Your task to perform on an android device: When is my next appointment? Image 0: 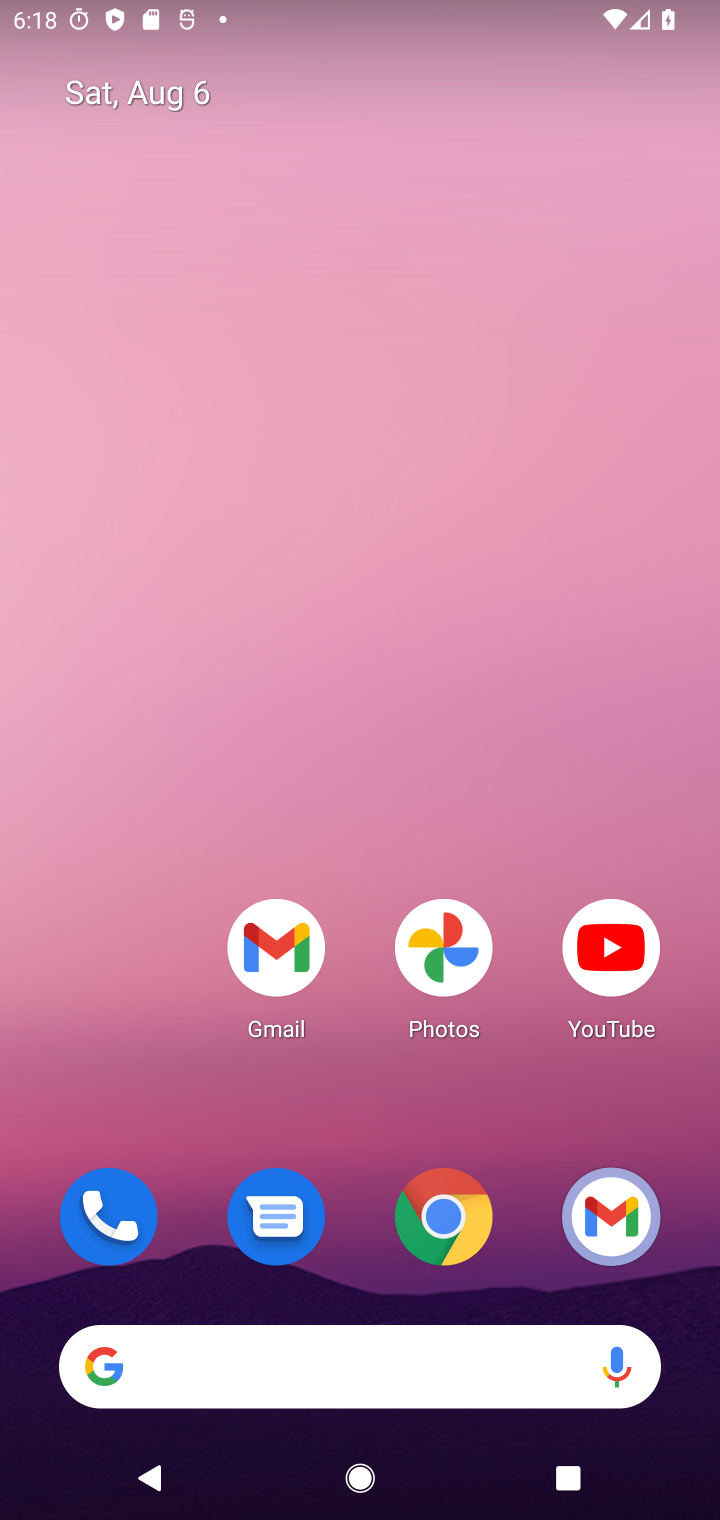
Step 0: drag from (527, 1172) to (615, 318)
Your task to perform on an android device: When is my next appointment? Image 1: 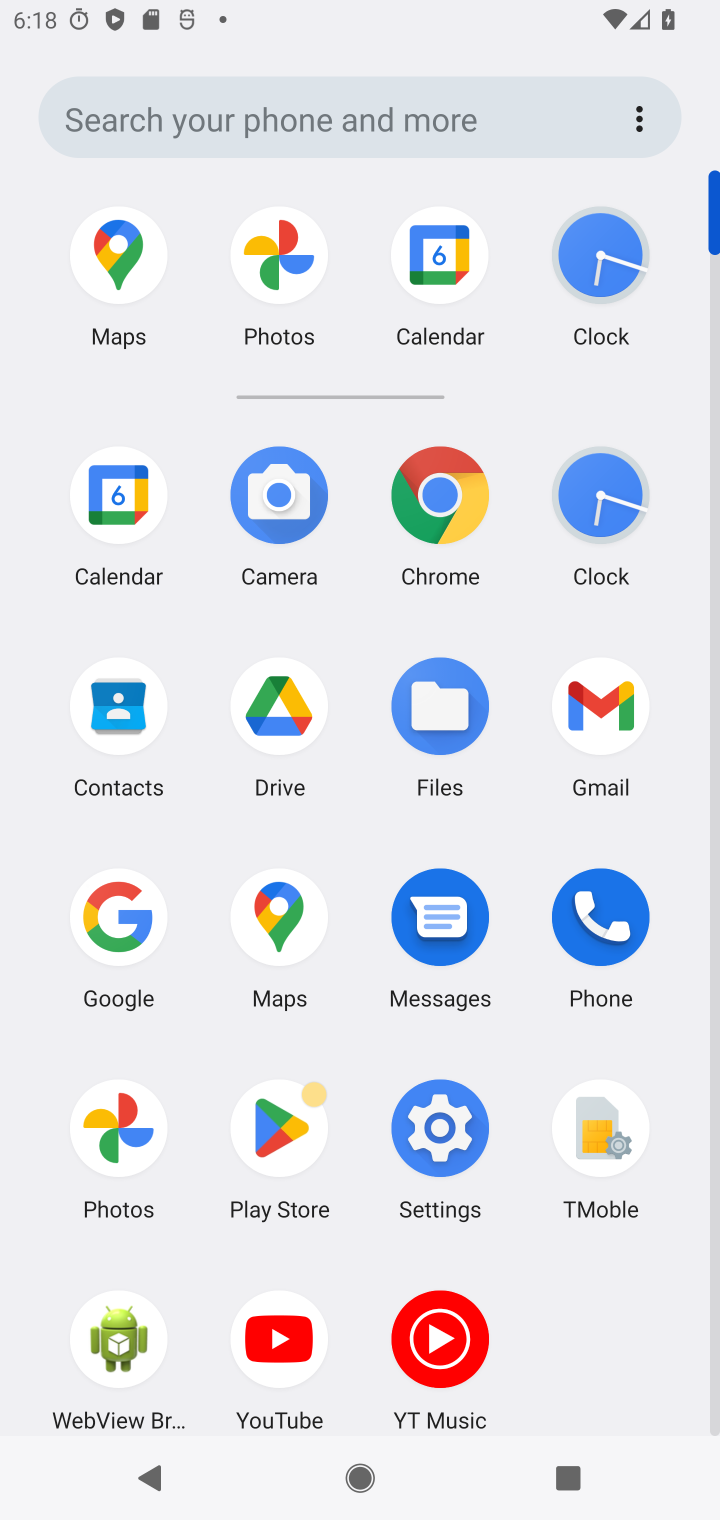
Step 1: click (118, 492)
Your task to perform on an android device: When is my next appointment? Image 2: 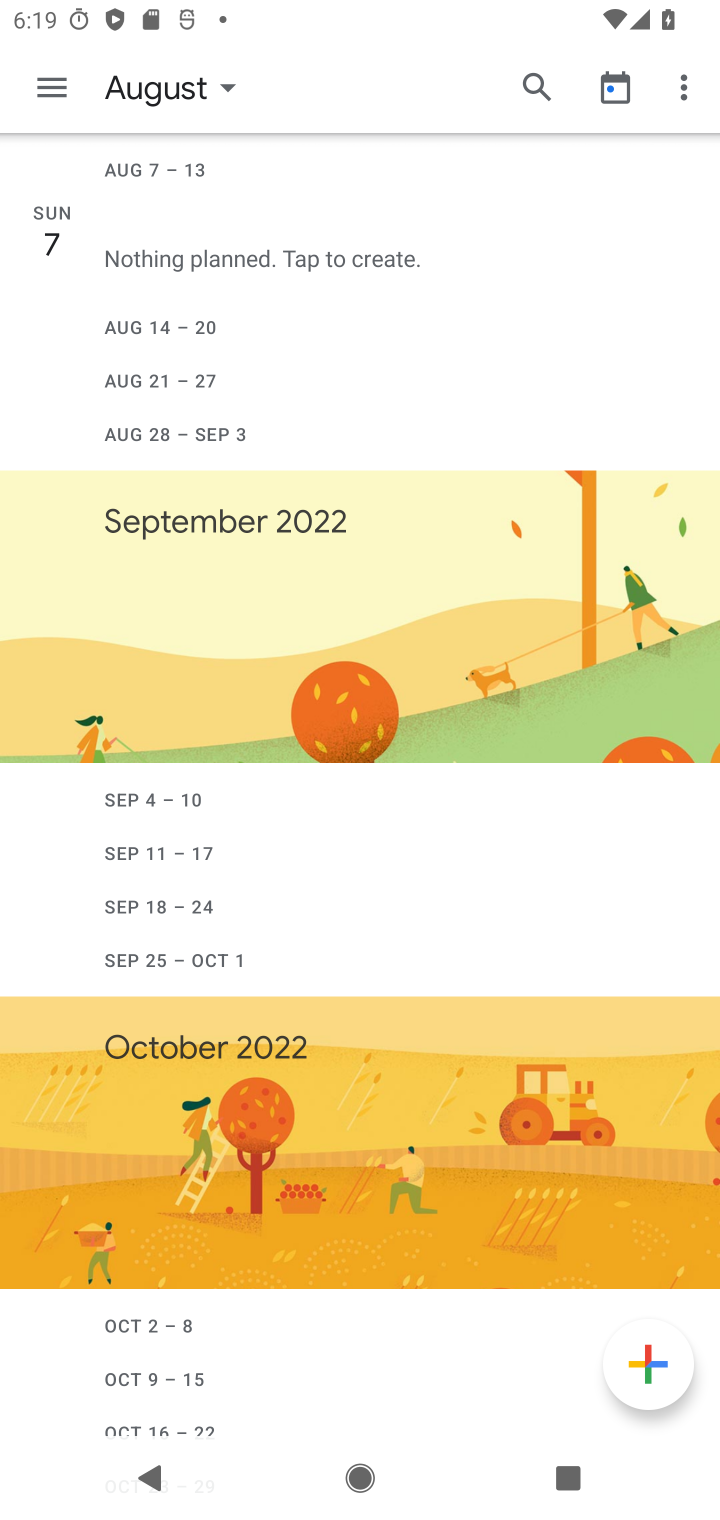
Step 2: click (58, 80)
Your task to perform on an android device: When is my next appointment? Image 3: 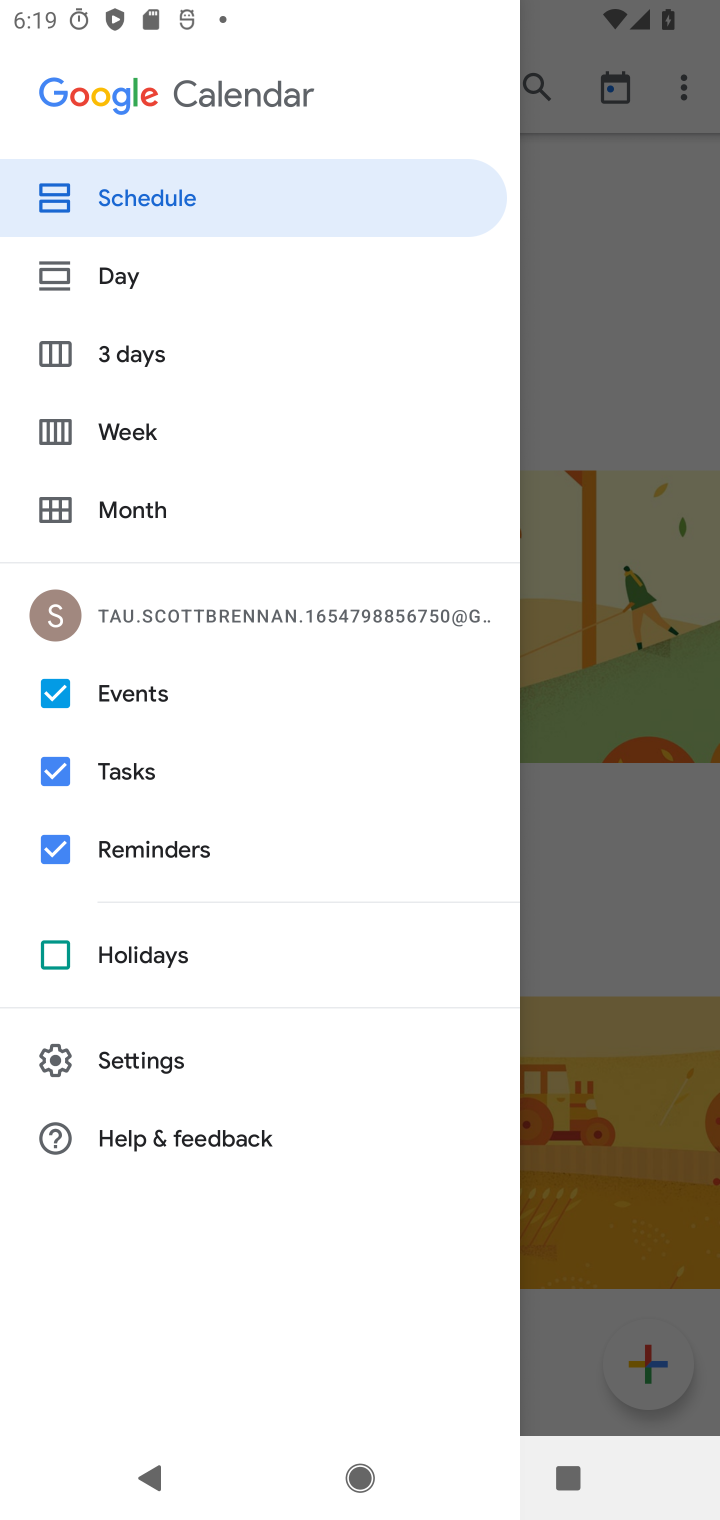
Step 3: click (144, 419)
Your task to perform on an android device: When is my next appointment? Image 4: 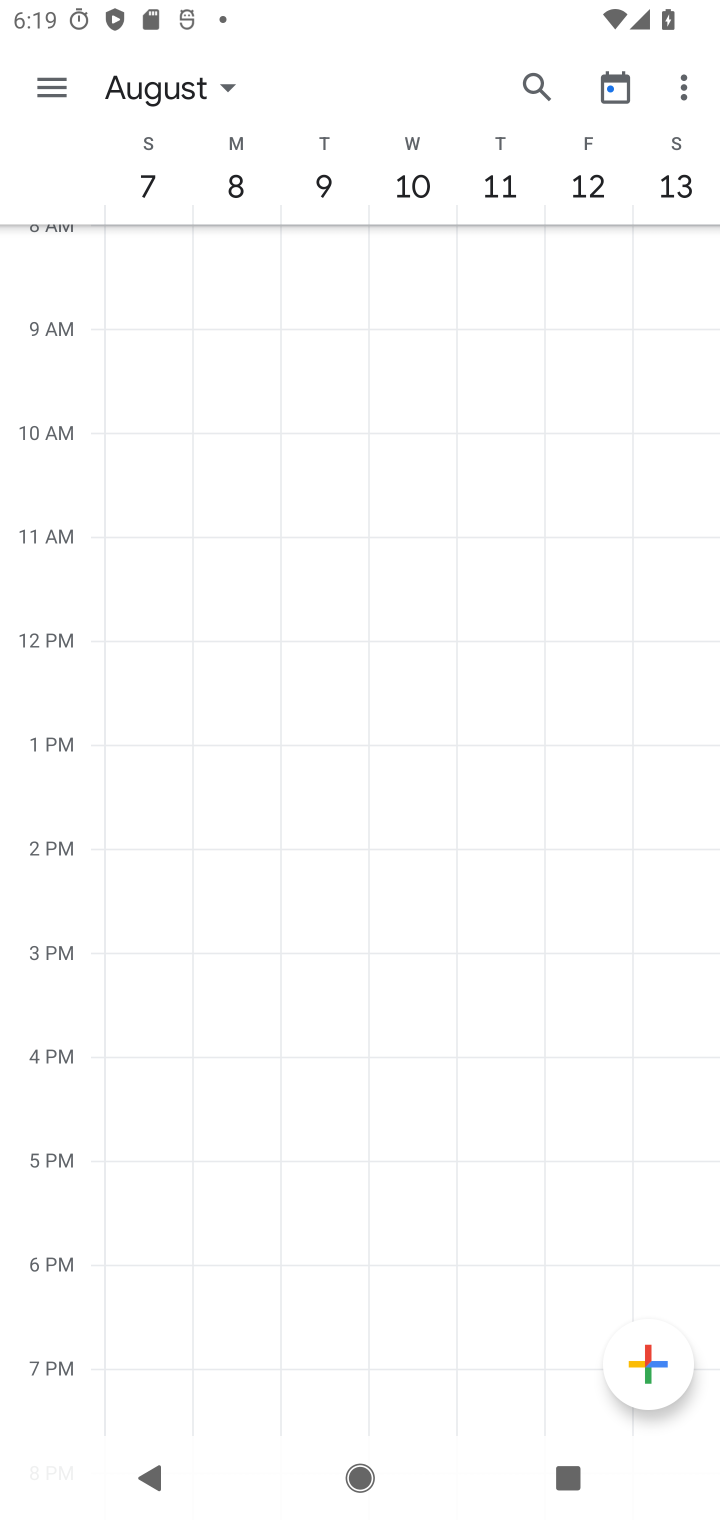
Step 4: task complete